Your task to perform on an android device: Open calendar and show me the fourth week of next month Image 0: 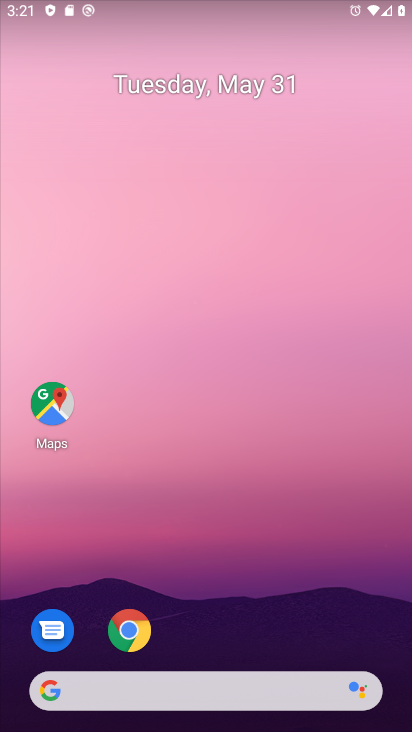
Step 0: drag from (284, 684) to (284, 60)
Your task to perform on an android device: Open calendar and show me the fourth week of next month Image 1: 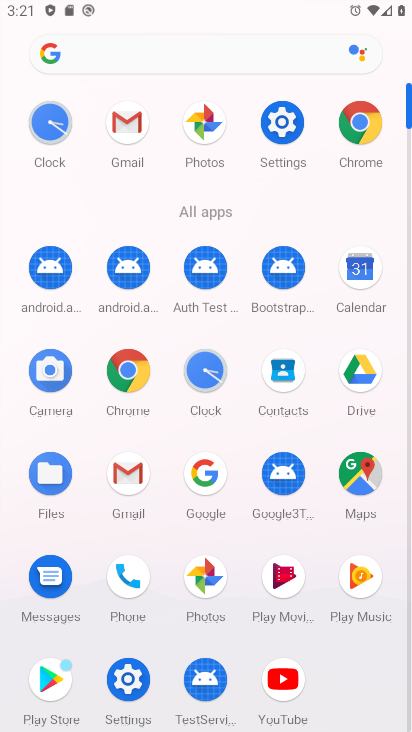
Step 1: click (355, 262)
Your task to perform on an android device: Open calendar and show me the fourth week of next month Image 2: 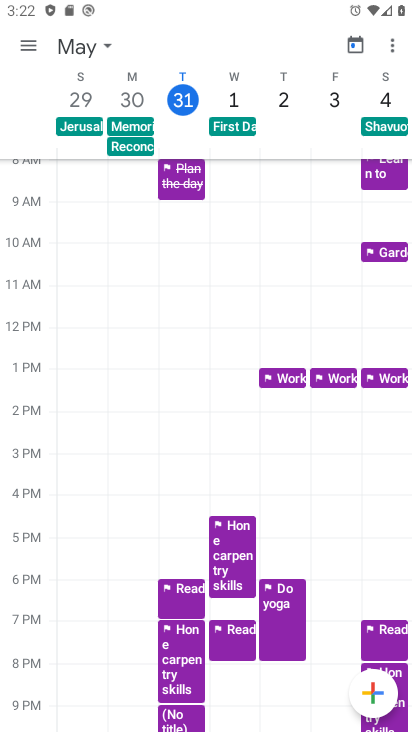
Step 2: click (107, 50)
Your task to perform on an android device: Open calendar and show me the fourth week of next month Image 3: 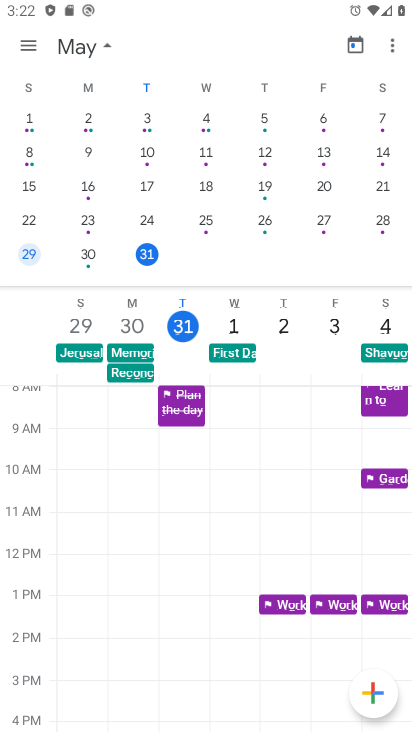
Step 3: drag from (317, 188) to (45, 189)
Your task to perform on an android device: Open calendar and show me the fourth week of next month Image 4: 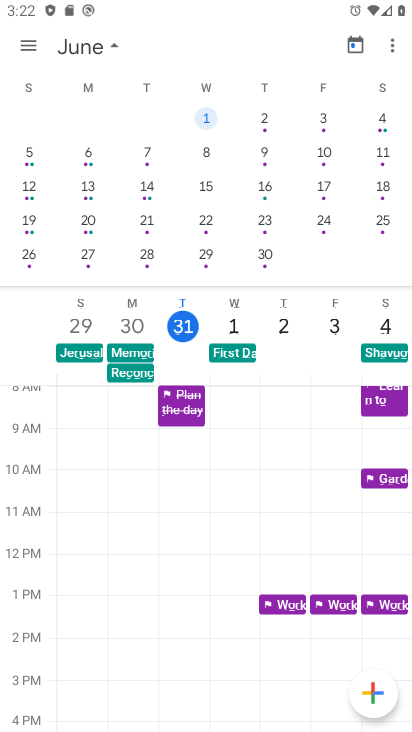
Step 4: click (272, 221)
Your task to perform on an android device: Open calendar and show me the fourth week of next month Image 5: 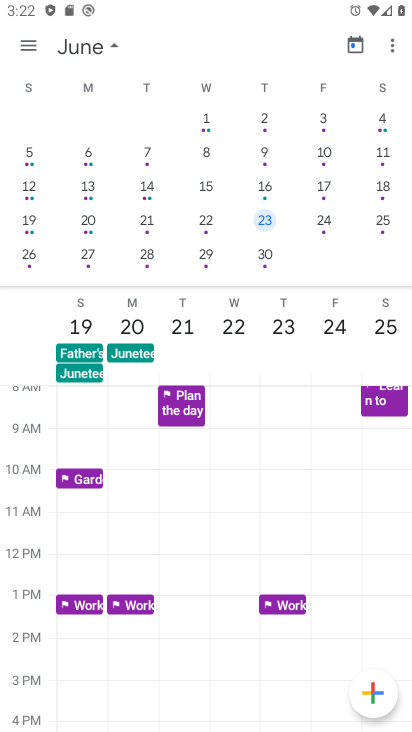
Step 5: task complete